Your task to perform on an android device: check out phone information Image 0: 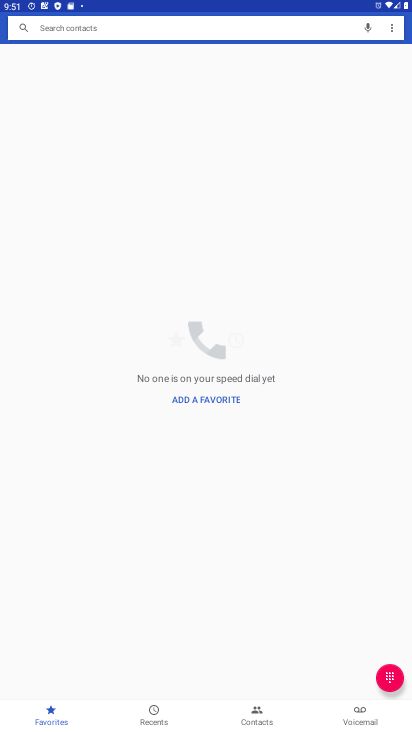
Step 0: press home button
Your task to perform on an android device: check out phone information Image 1: 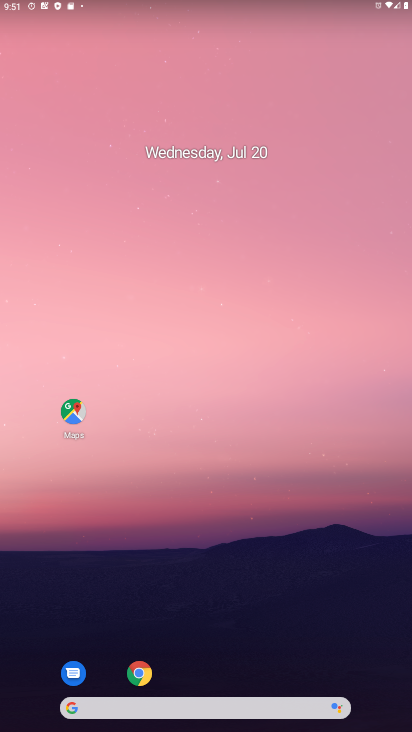
Step 1: drag from (193, 727) to (192, 166)
Your task to perform on an android device: check out phone information Image 2: 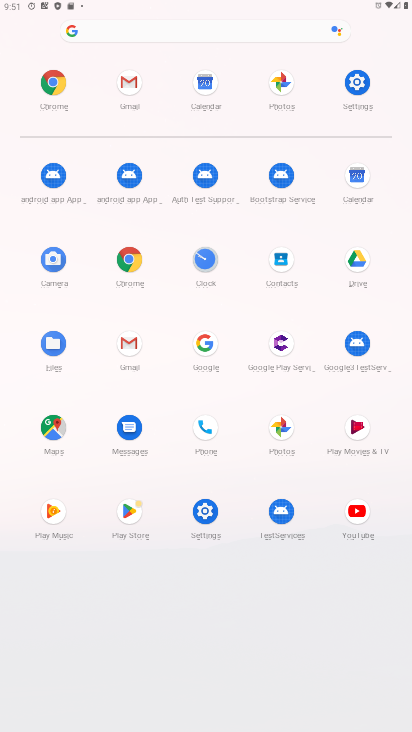
Step 2: click (361, 84)
Your task to perform on an android device: check out phone information Image 3: 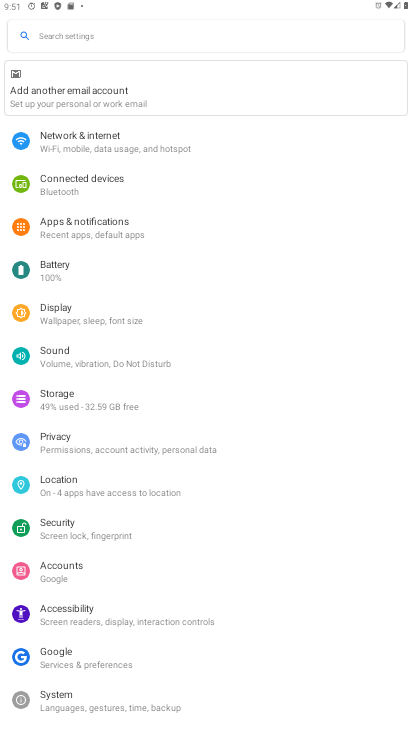
Step 3: drag from (100, 673) to (64, 232)
Your task to perform on an android device: check out phone information Image 4: 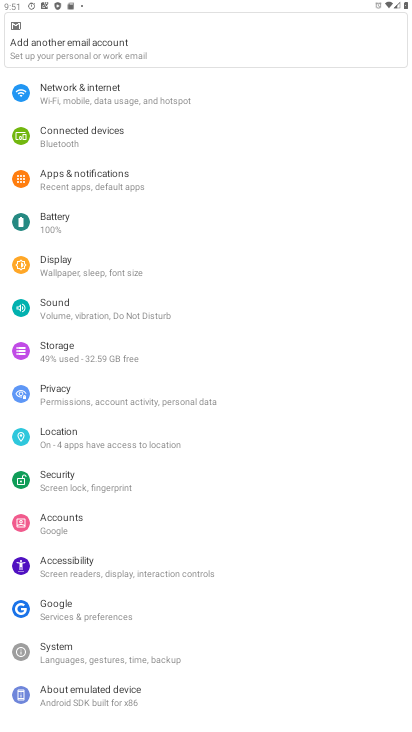
Step 4: click (70, 689)
Your task to perform on an android device: check out phone information Image 5: 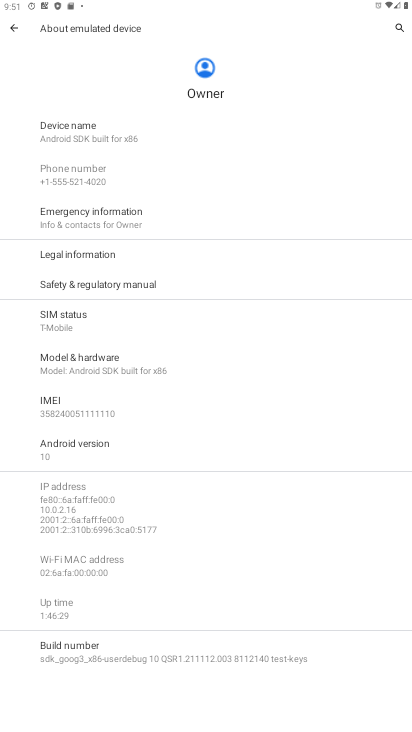
Step 5: task complete